Your task to perform on an android device: Turn on the flashlight Image 0: 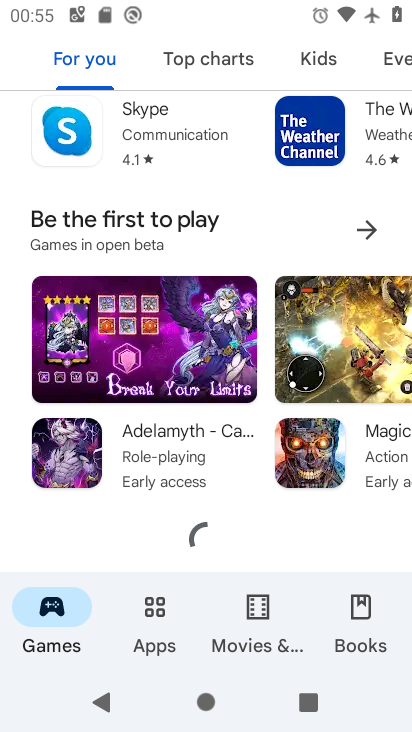
Step 0: press home button
Your task to perform on an android device: Turn on the flashlight Image 1: 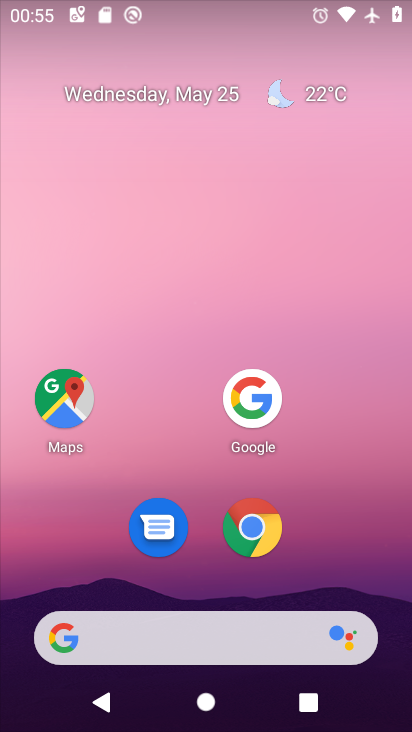
Step 1: task complete